Your task to perform on an android device: Open Youtube and go to the subscriptions tab Image 0: 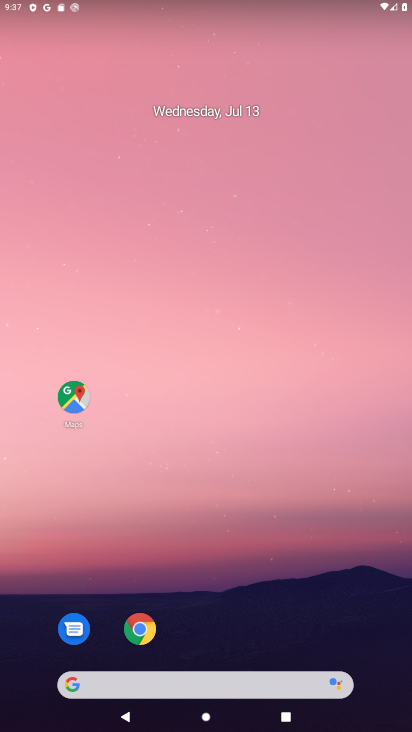
Step 0: drag from (264, 603) to (234, 10)
Your task to perform on an android device: Open Youtube and go to the subscriptions tab Image 1: 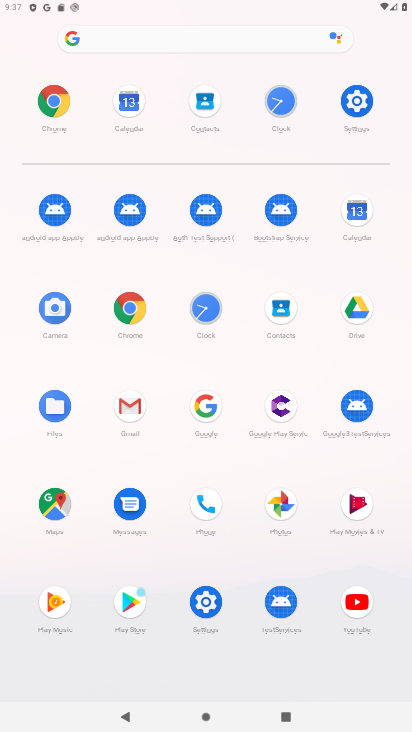
Step 1: click (348, 610)
Your task to perform on an android device: Open Youtube and go to the subscriptions tab Image 2: 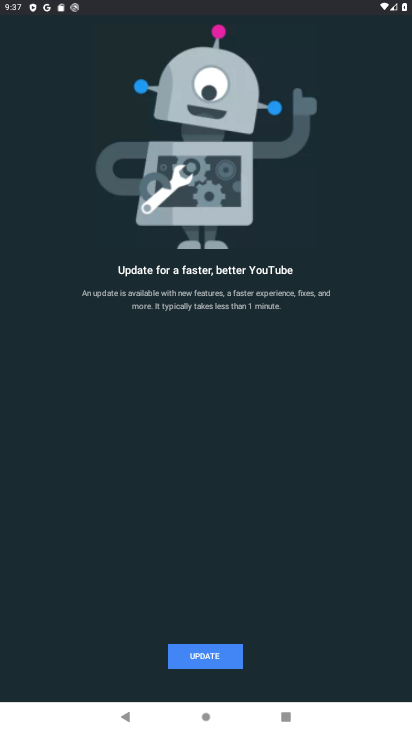
Step 2: click (221, 644)
Your task to perform on an android device: Open Youtube and go to the subscriptions tab Image 3: 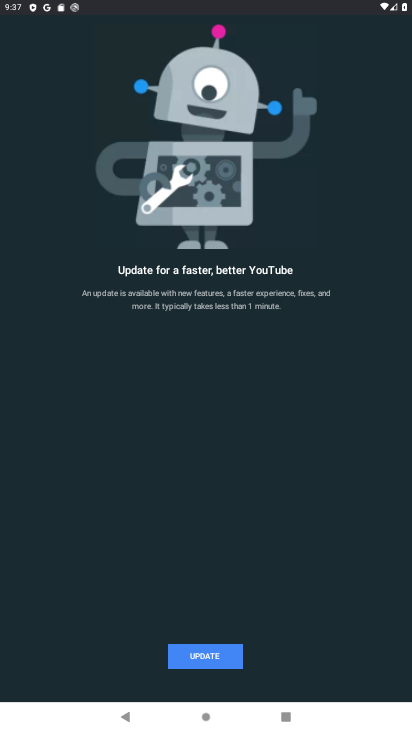
Step 3: click (158, 644)
Your task to perform on an android device: Open Youtube and go to the subscriptions tab Image 4: 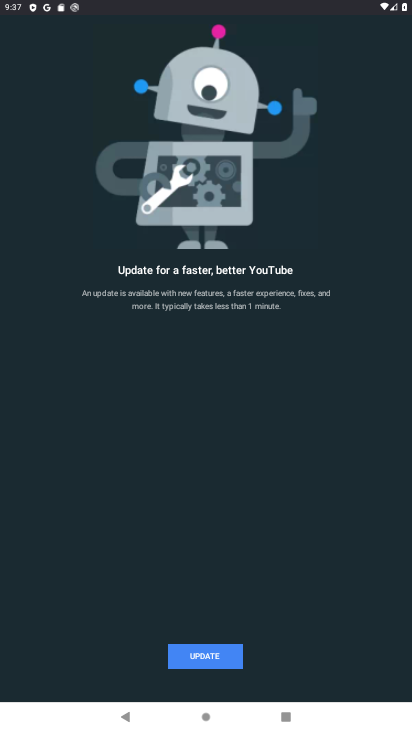
Step 4: click (205, 647)
Your task to perform on an android device: Open Youtube and go to the subscriptions tab Image 5: 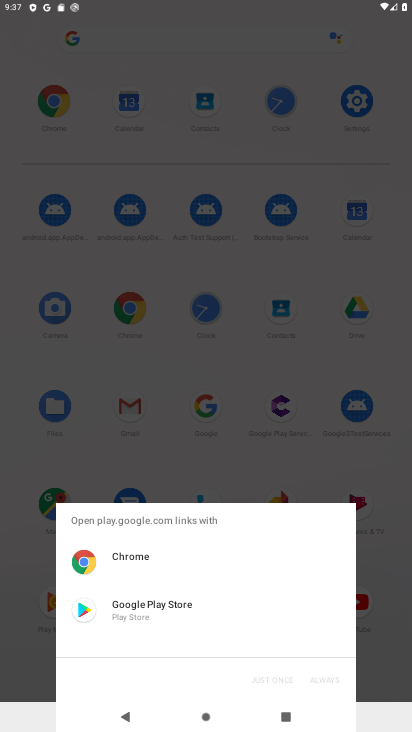
Step 5: click (265, 622)
Your task to perform on an android device: Open Youtube and go to the subscriptions tab Image 6: 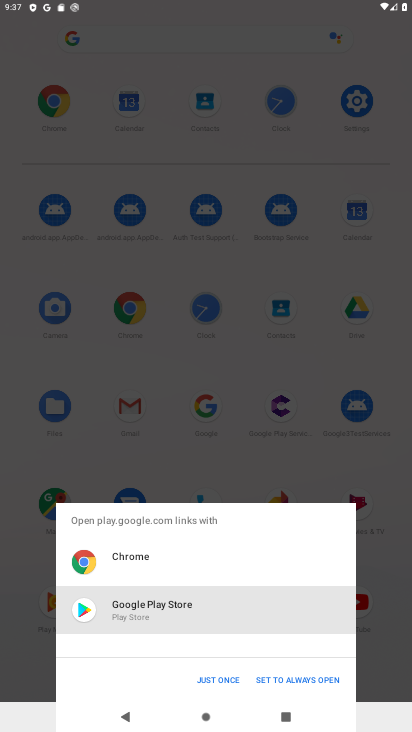
Step 6: click (202, 671)
Your task to perform on an android device: Open Youtube and go to the subscriptions tab Image 7: 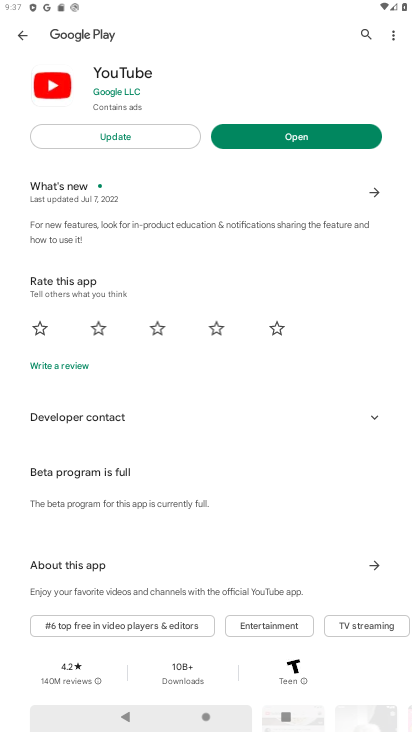
Step 7: click (111, 136)
Your task to perform on an android device: Open Youtube and go to the subscriptions tab Image 8: 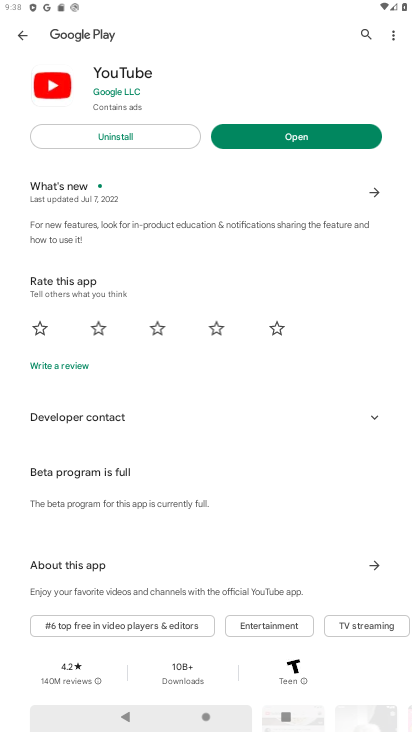
Step 8: click (254, 138)
Your task to perform on an android device: Open Youtube and go to the subscriptions tab Image 9: 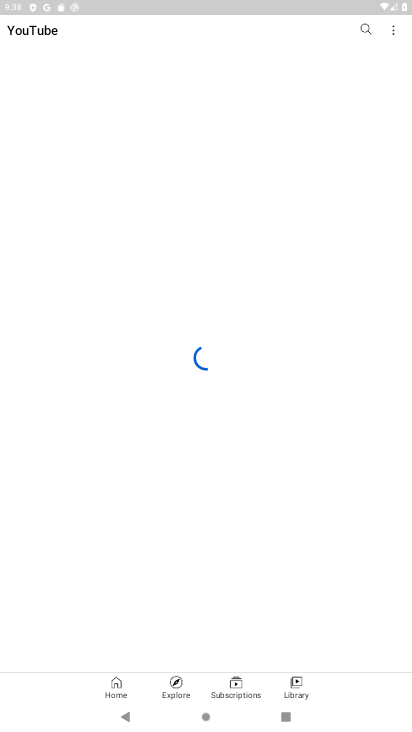
Step 9: click (235, 696)
Your task to perform on an android device: Open Youtube and go to the subscriptions tab Image 10: 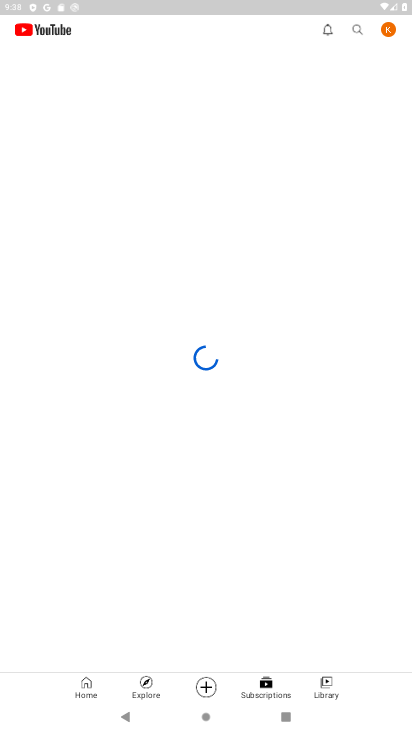
Step 10: task complete